Your task to perform on an android device: Open location settings Image 0: 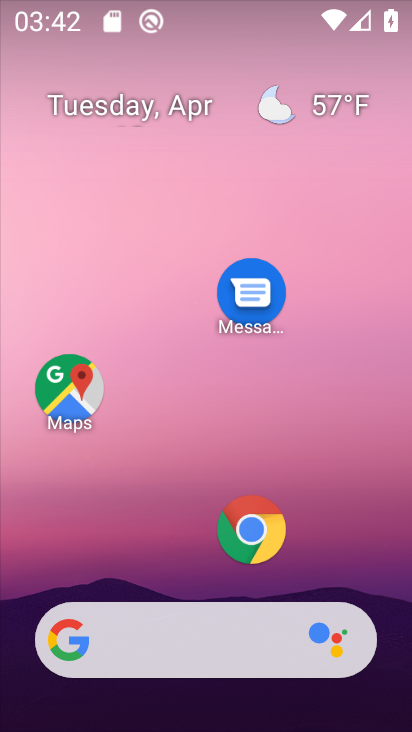
Step 0: drag from (178, 528) to (166, 198)
Your task to perform on an android device: Open location settings Image 1: 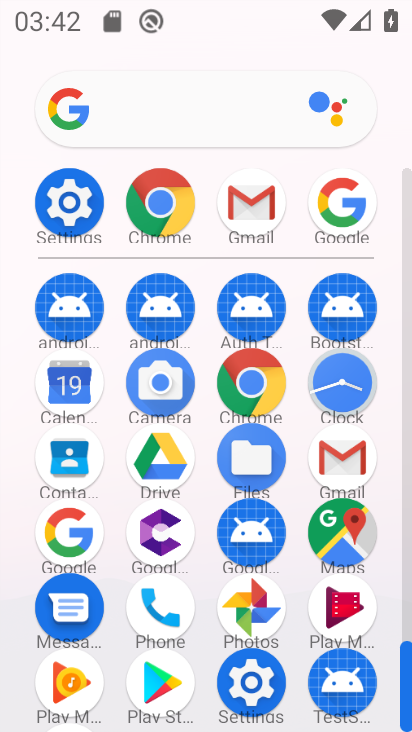
Step 1: click (69, 200)
Your task to perform on an android device: Open location settings Image 2: 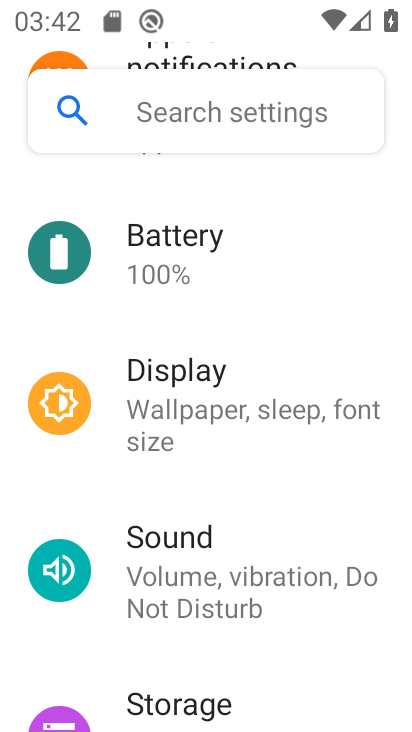
Step 2: drag from (225, 552) to (206, 181)
Your task to perform on an android device: Open location settings Image 3: 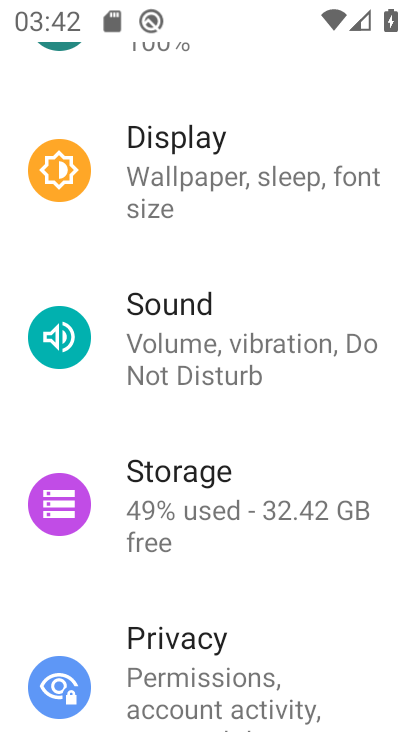
Step 3: drag from (254, 579) to (259, 255)
Your task to perform on an android device: Open location settings Image 4: 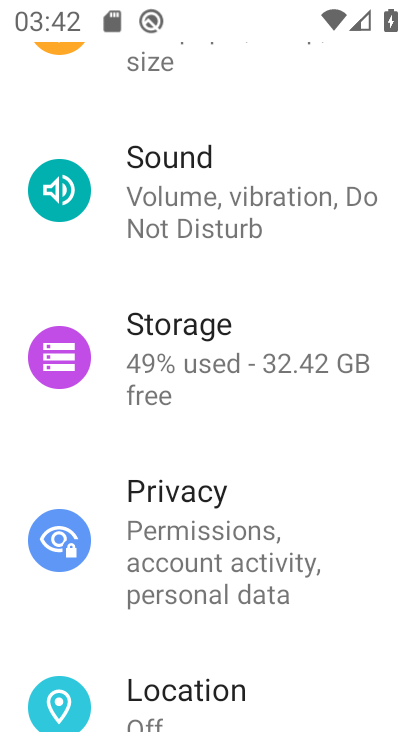
Step 4: click (160, 697)
Your task to perform on an android device: Open location settings Image 5: 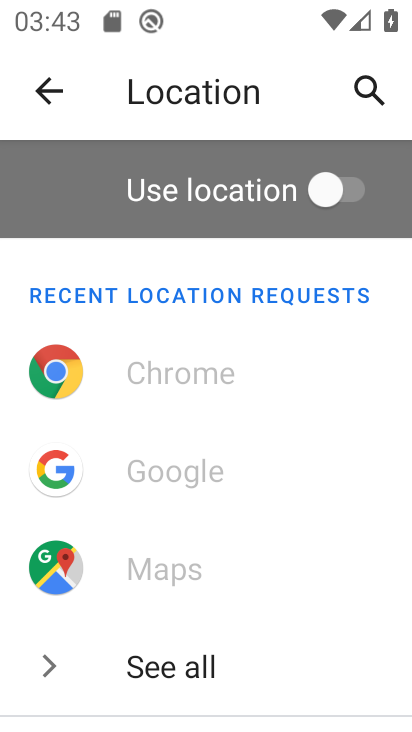
Step 5: task complete